Your task to perform on an android device: turn on the 12-hour format for clock Image 0: 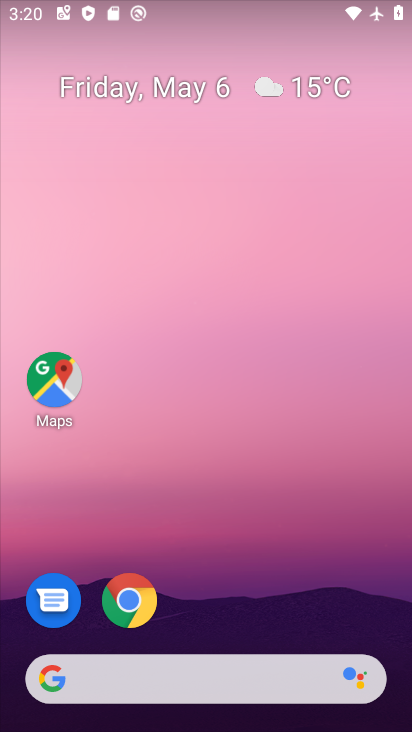
Step 0: drag from (348, 577) to (243, 2)
Your task to perform on an android device: turn on the 12-hour format for clock Image 1: 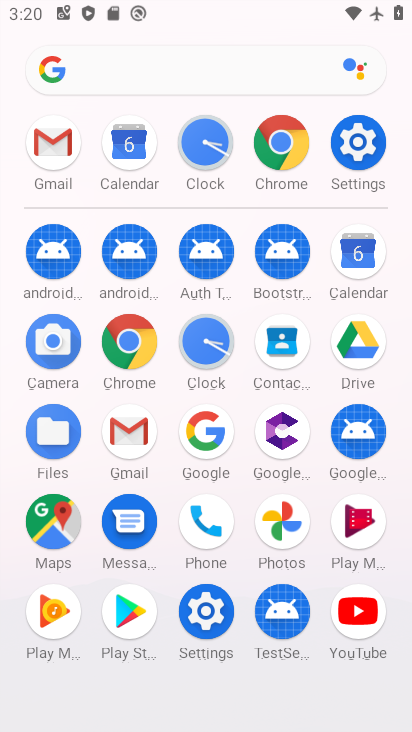
Step 1: drag from (12, 535) to (15, 129)
Your task to perform on an android device: turn on the 12-hour format for clock Image 2: 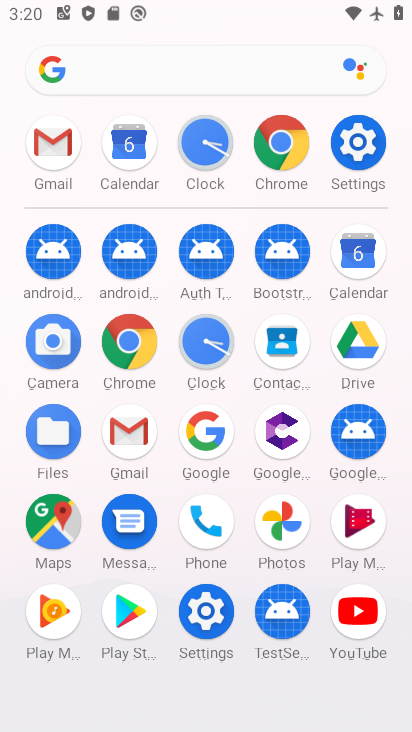
Step 2: click (200, 339)
Your task to perform on an android device: turn on the 12-hour format for clock Image 3: 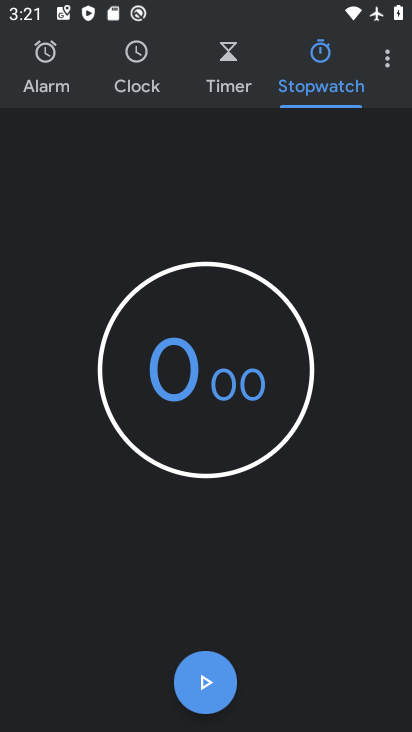
Step 3: drag from (387, 55) to (365, 92)
Your task to perform on an android device: turn on the 12-hour format for clock Image 4: 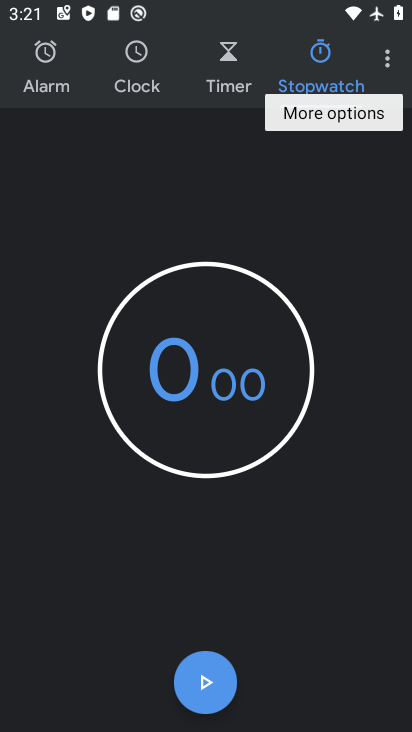
Step 4: click (385, 53)
Your task to perform on an android device: turn on the 12-hour format for clock Image 5: 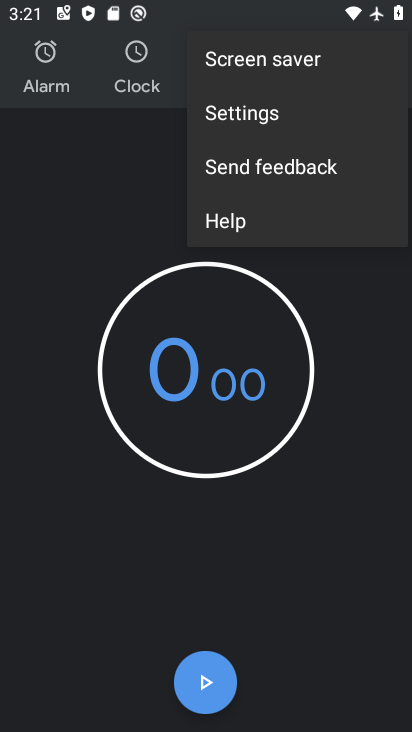
Step 5: click (286, 110)
Your task to perform on an android device: turn on the 12-hour format for clock Image 6: 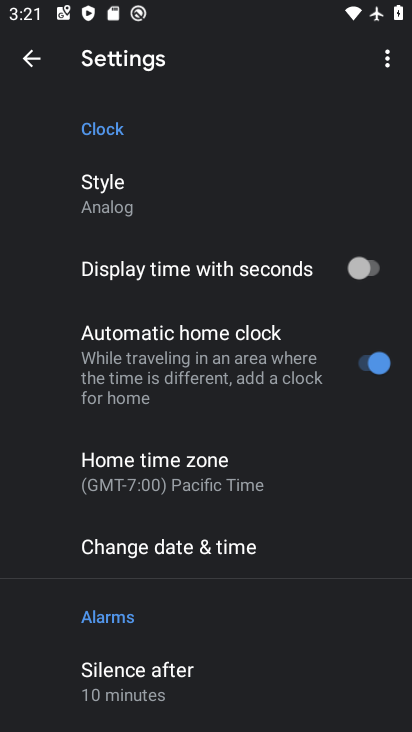
Step 6: drag from (252, 557) to (243, 178)
Your task to perform on an android device: turn on the 12-hour format for clock Image 7: 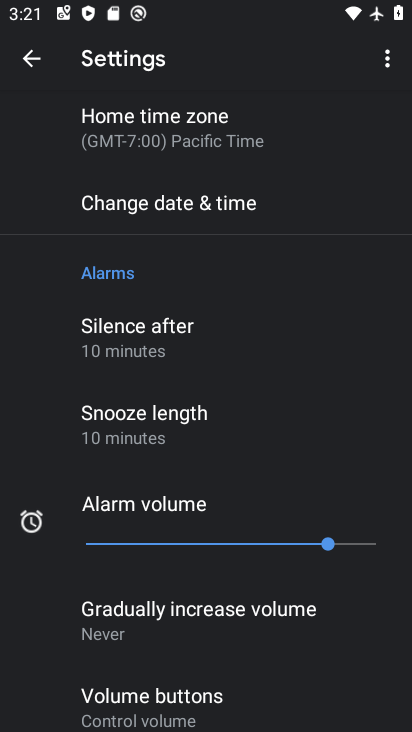
Step 7: click (203, 195)
Your task to perform on an android device: turn on the 12-hour format for clock Image 8: 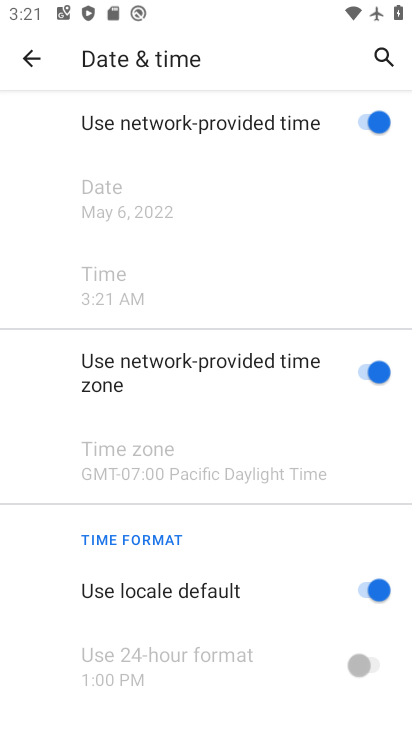
Step 8: task complete